Your task to perform on an android device: star an email in the gmail app Image 0: 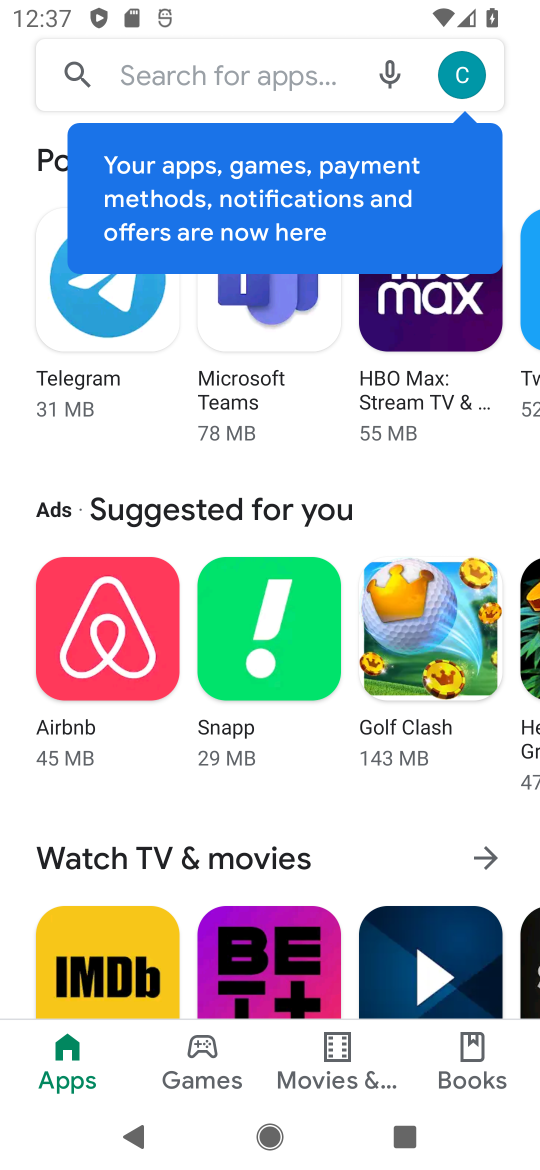
Step 0: drag from (224, 736) to (4, 813)
Your task to perform on an android device: star an email in the gmail app Image 1: 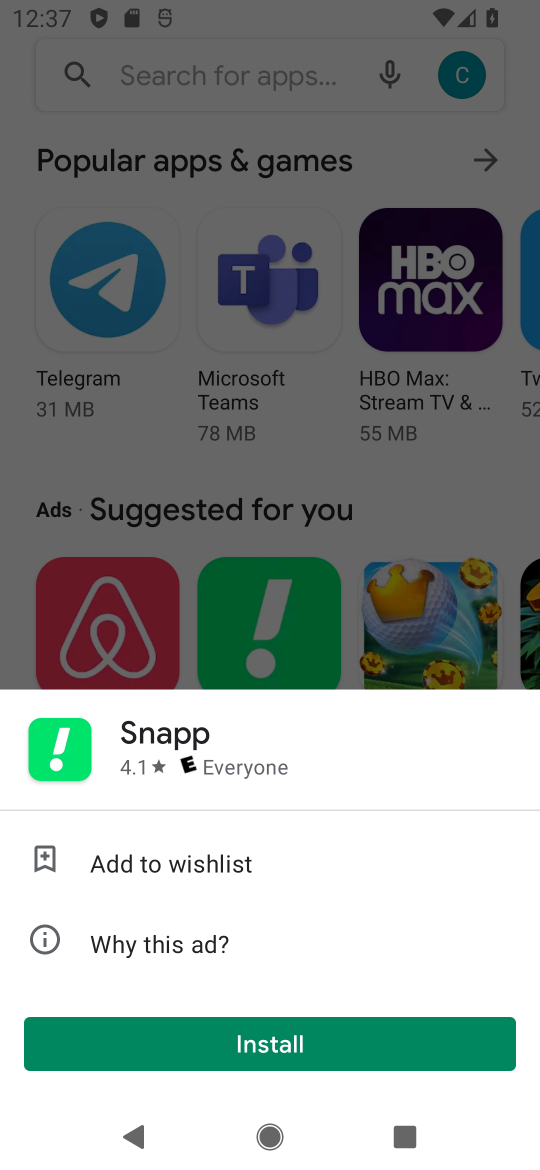
Step 1: press back button
Your task to perform on an android device: star an email in the gmail app Image 2: 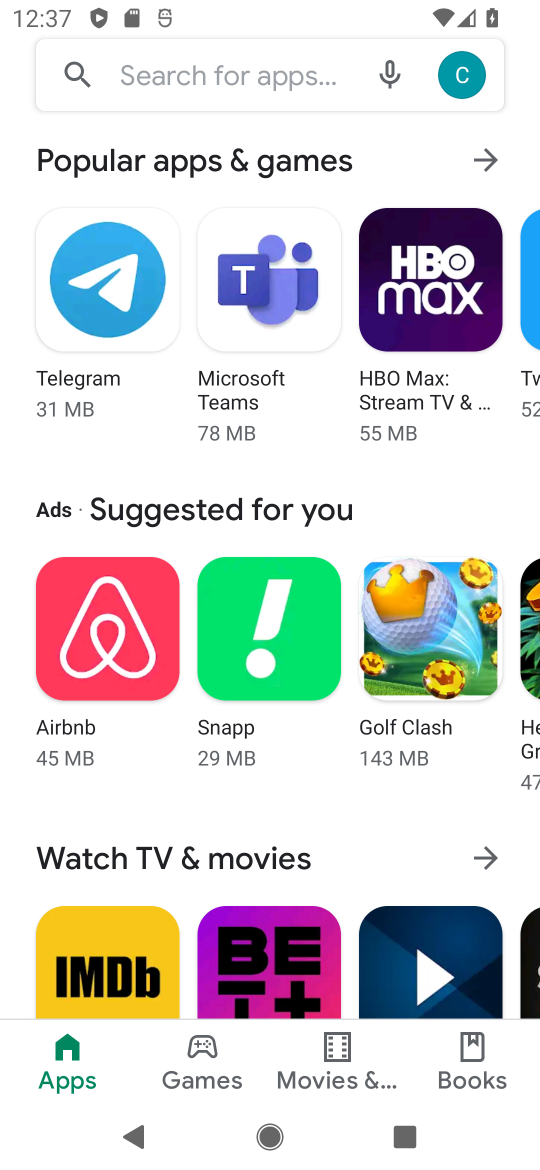
Step 2: press back button
Your task to perform on an android device: star an email in the gmail app Image 3: 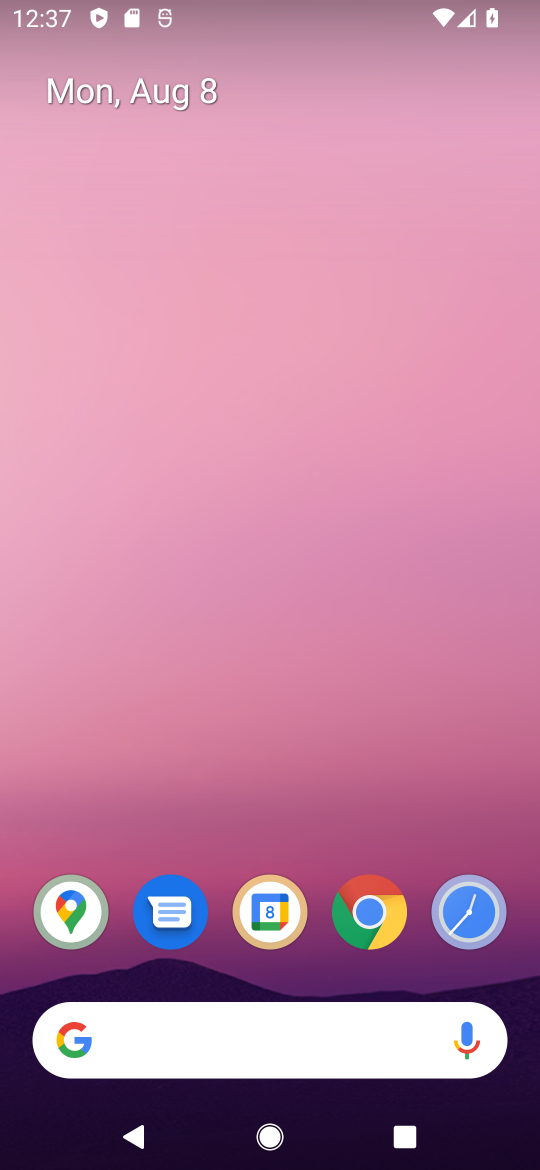
Step 3: drag from (285, 971) to (390, 9)
Your task to perform on an android device: star an email in the gmail app Image 4: 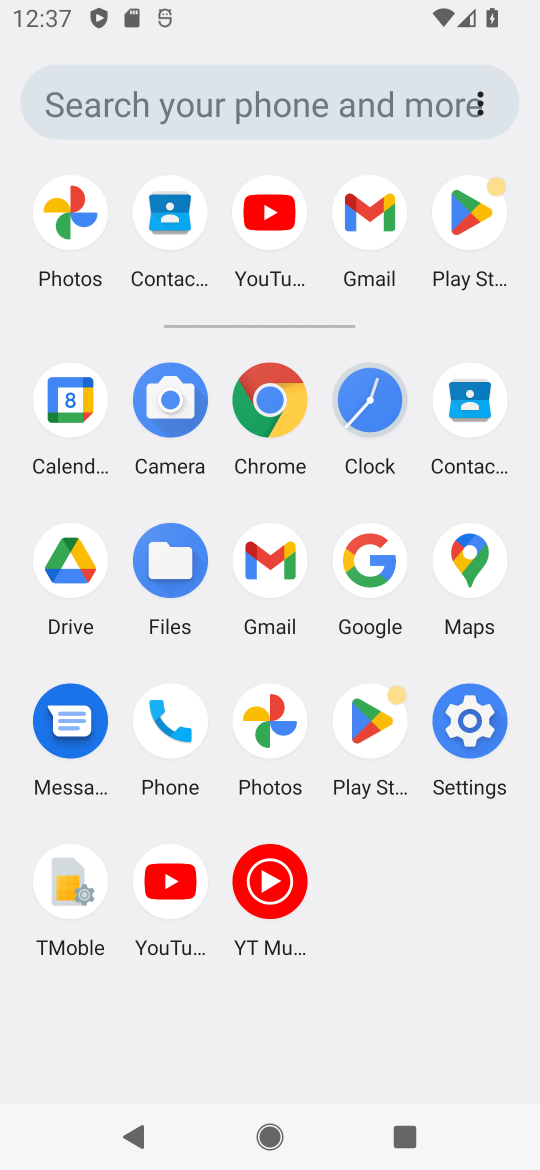
Step 4: click (369, 221)
Your task to perform on an android device: star an email in the gmail app Image 5: 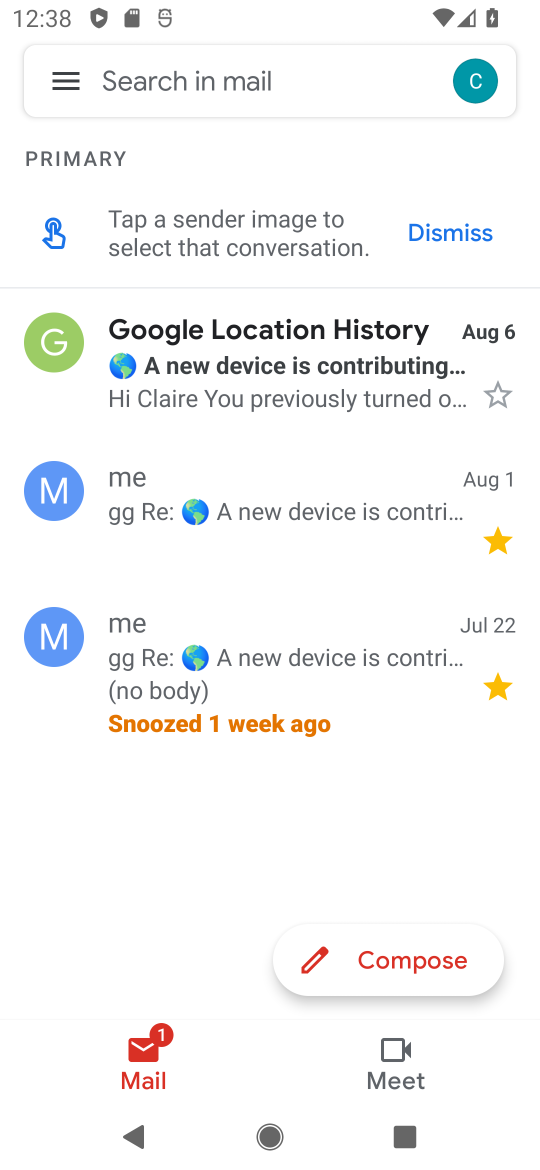
Step 5: click (495, 393)
Your task to perform on an android device: star an email in the gmail app Image 6: 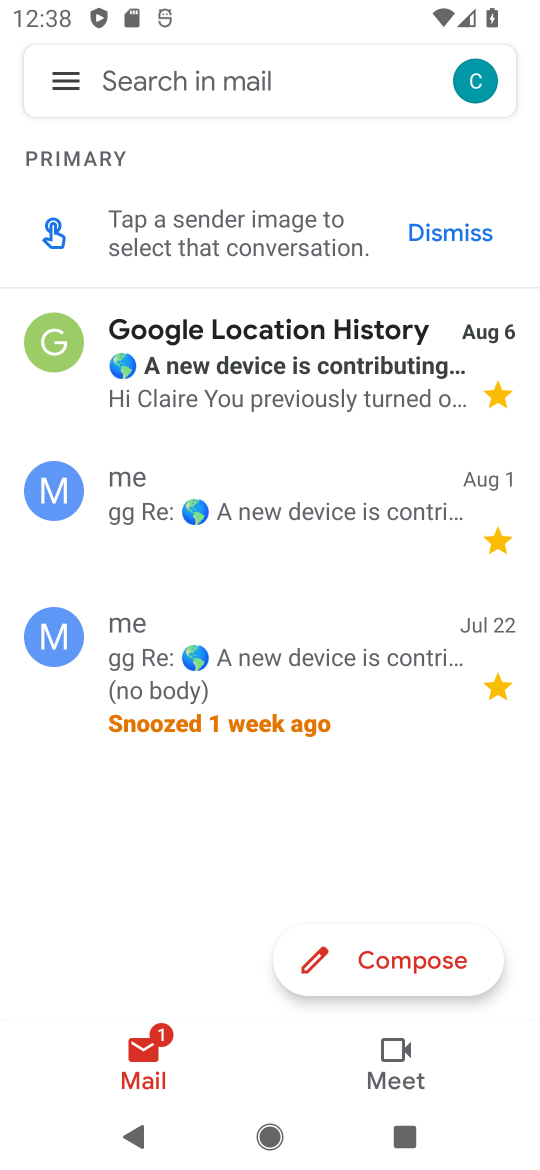
Step 6: task complete